Your task to perform on an android device: delete the emails in spam in the gmail app Image 0: 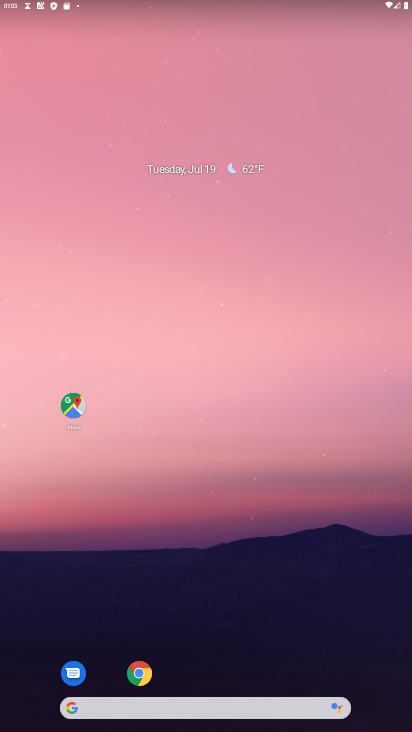
Step 0: drag from (222, 588) to (220, 267)
Your task to perform on an android device: delete the emails in spam in the gmail app Image 1: 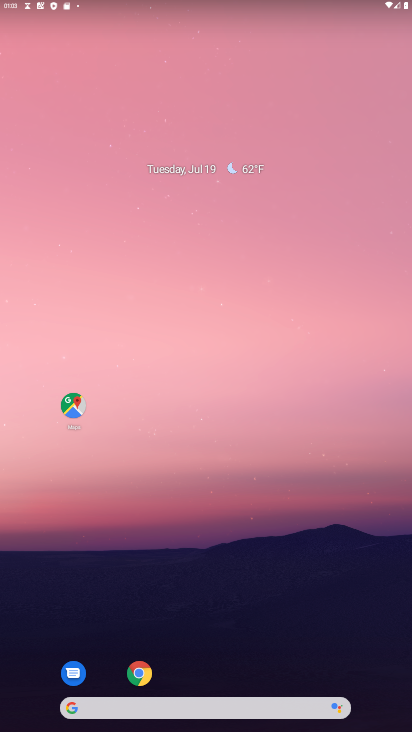
Step 1: drag from (182, 667) to (183, 223)
Your task to perform on an android device: delete the emails in spam in the gmail app Image 2: 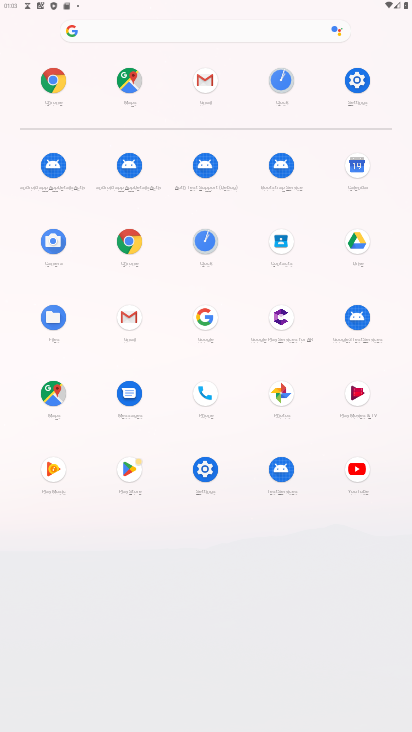
Step 2: click (207, 71)
Your task to perform on an android device: delete the emails in spam in the gmail app Image 3: 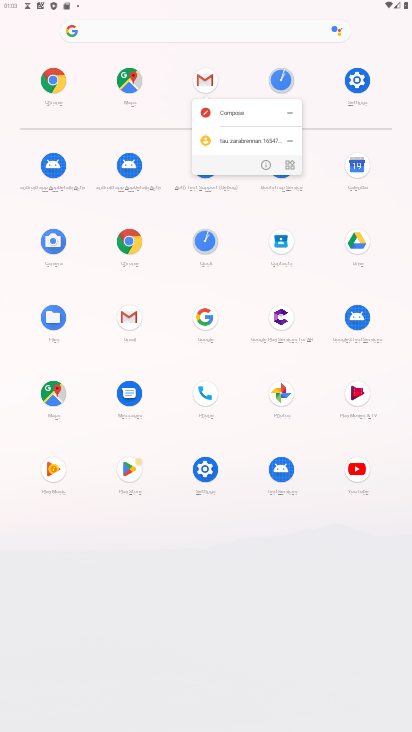
Step 3: click (205, 90)
Your task to perform on an android device: delete the emails in spam in the gmail app Image 4: 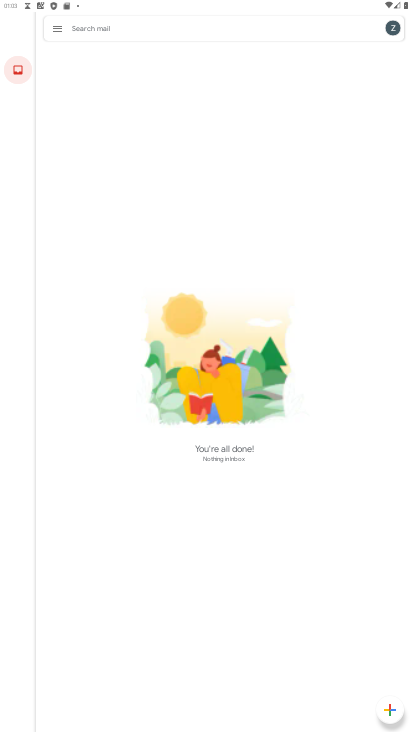
Step 4: click (53, 21)
Your task to perform on an android device: delete the emails in spam in the gmail app Image 5: 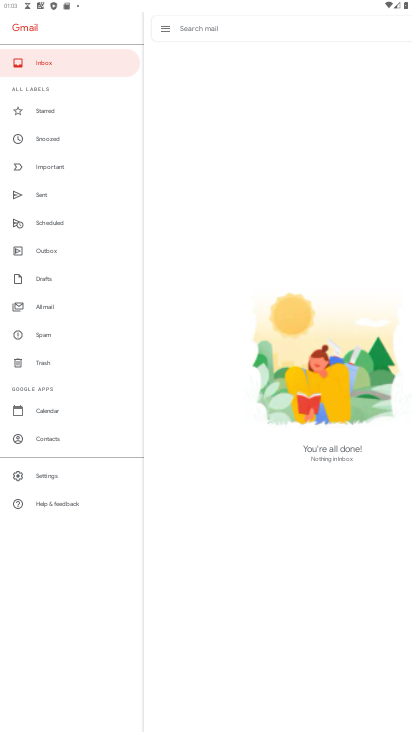
Step 5: click (48, 335)
Your task to perform on an android device: delete the emails in spam in the gmail app Image 6: 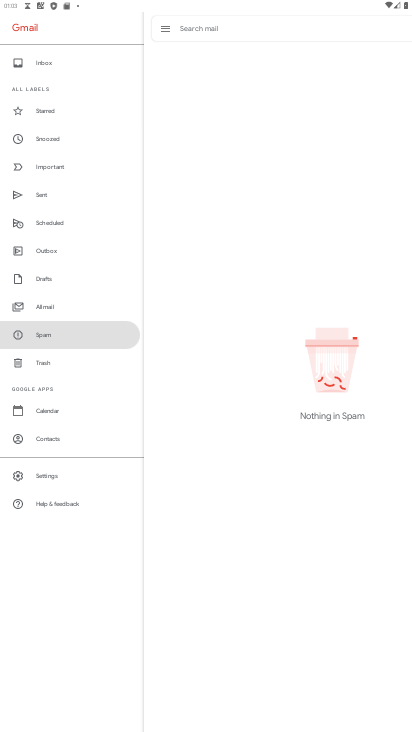
Step 6: task complete